Your task to perform on an android device: toggle improve location accuracy Image 0: 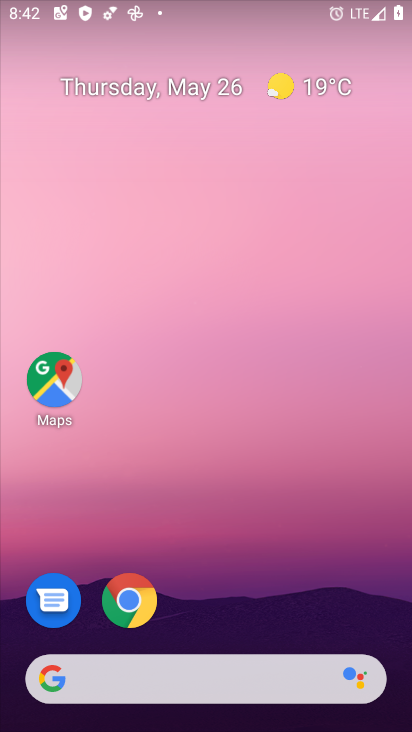
Step 0: press home button
Your task to perform on an android device: toggle improve location accuracy Image 1: 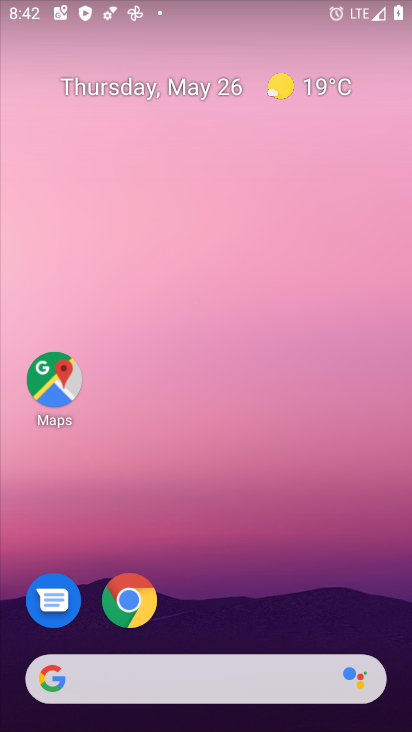
Step 1: drag from (304, 621) to (250, 141)
Your task to perform on an android device: toggle improve location accuracy Image 2: 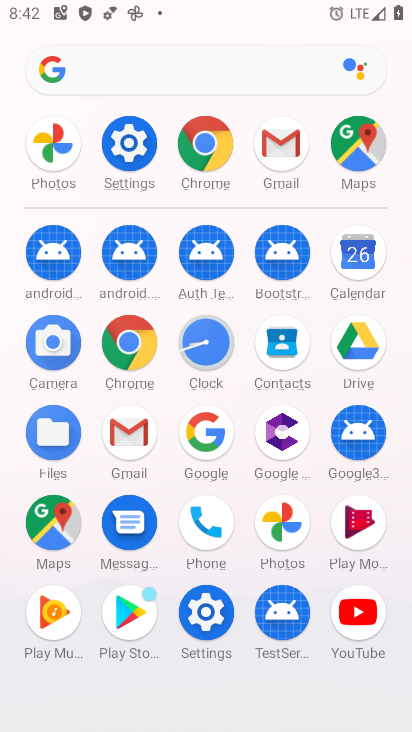
Step 2: click (130, 162)
Your task to perform on an android device: toggle improve location accuracy Image 3: 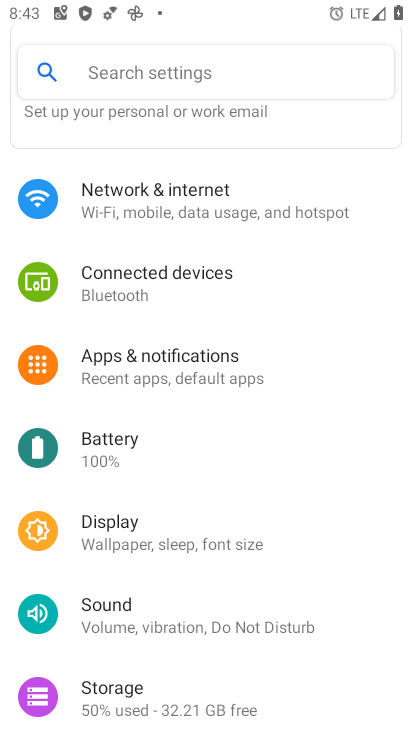
Step 3: drag from (301, 567) to (339, 244)
Your task to perform on an android device: toggle improve location accuracy Image 4: 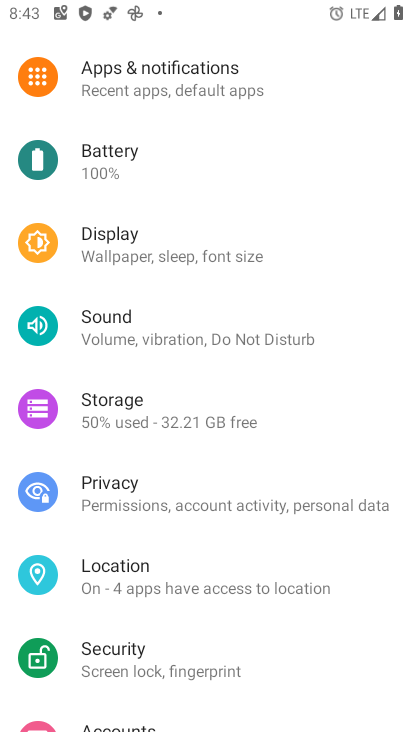
Step 4: click (109, 572)
Your task to perform on an android device: toggle improve location accuracy Image 5: 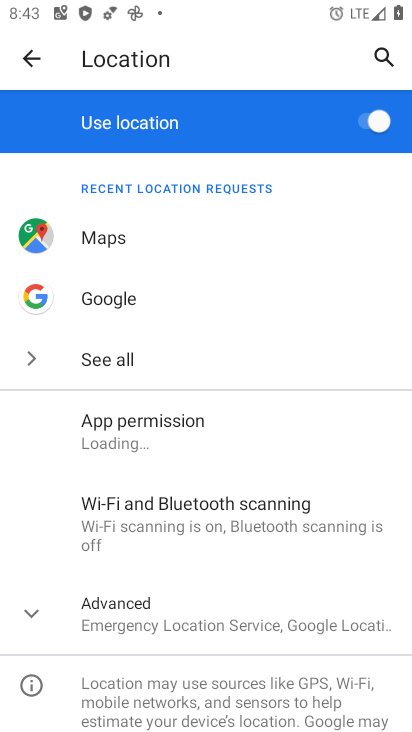
Step 5: click (130, 616)
Your task to perform on an android device: toggle improve location accuracy Image 6: 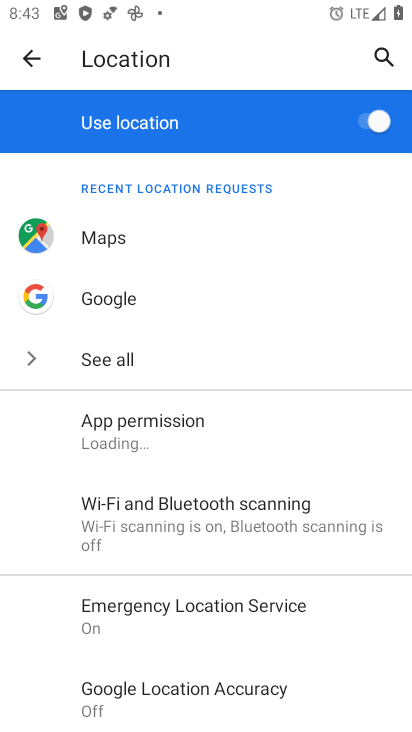
Step 6: click (189, 696)
Your task to perform on an android device: toggle improve location accuracy Image 7: 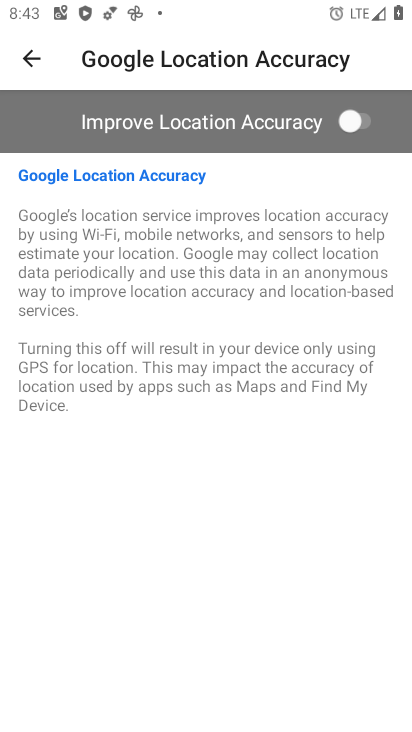
Step 7: click (357, 119)
Your task to perform on an android device: toggle improve location accuracy Image 8: 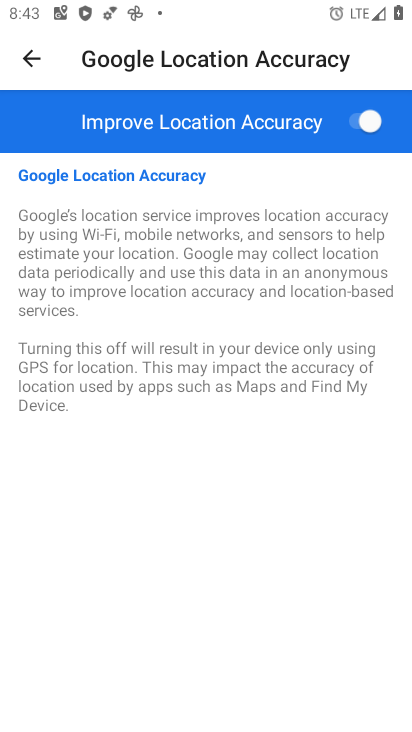
Step 8: task complete